Your task to perform on an android device: empty trash in the gmail app Image 0: 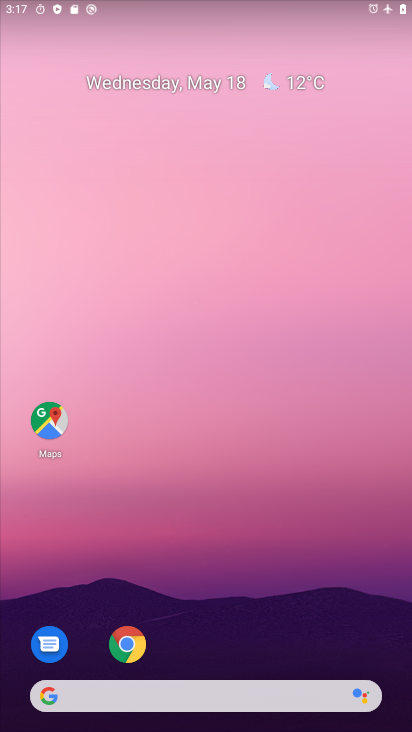
Step 0: drag from (375, 602) to (312, 321)
Your task to perform on an android device: empty trash in the gmail app Image 1: 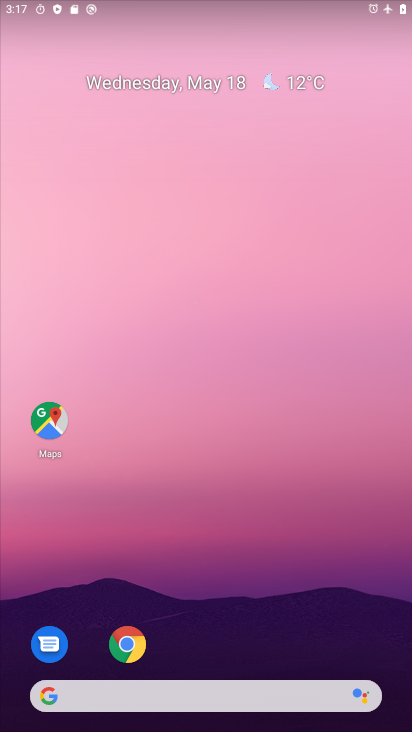
Step 1: drag from (396, 690) to (366, 290)
Your task to perform on an android device: empty trash in the gmail app Image 2: 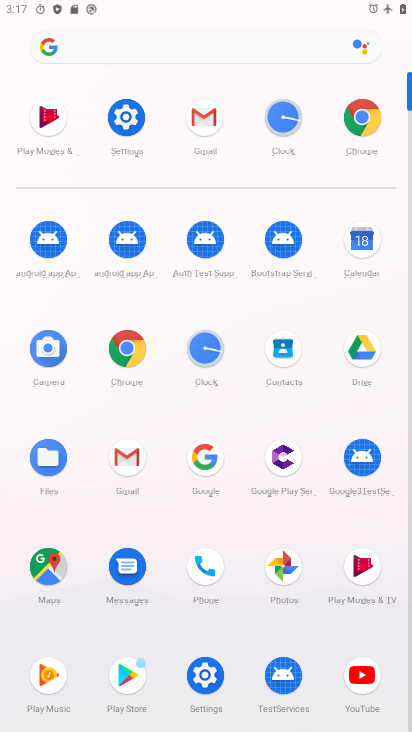
Step 2: click (200, 112)
Your task to perform on an android device: empty trash in the gmail app Image 3: 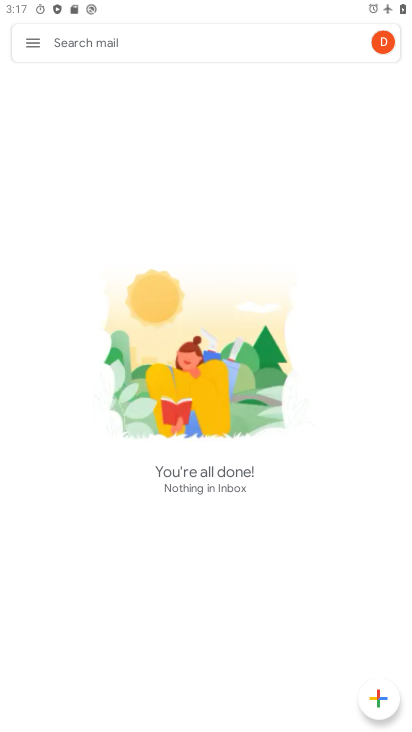
Step 3: click (21, 37)
Your task to perform on an android device: empty trash in the gmail app Image 4: 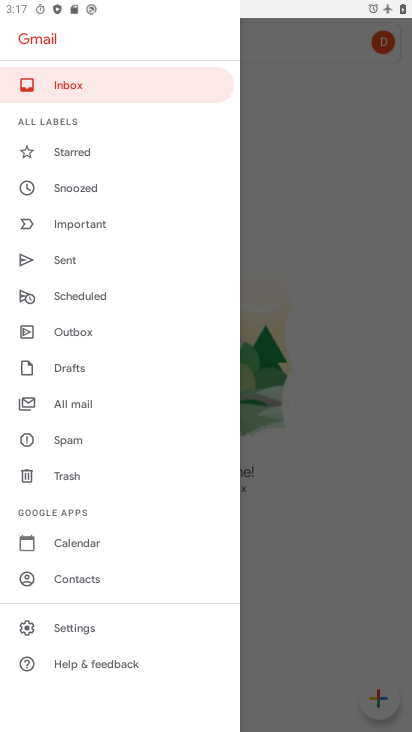
Step 4: click (51, 469)
Your task to perform on an android device: empty trash in the gmail app Image 5: 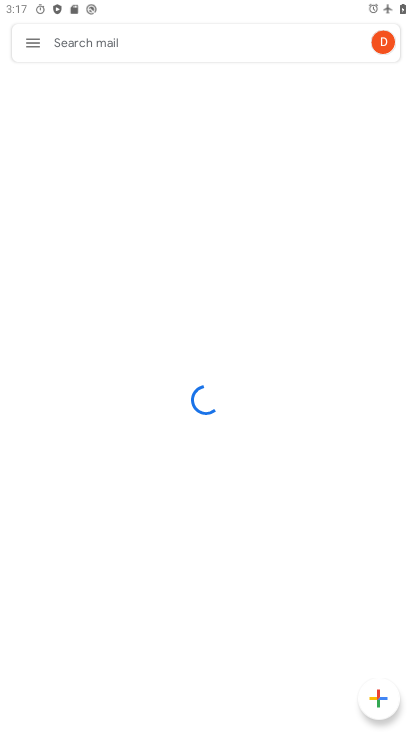
Step 5: task complete